Your task to perform on an android device: Open Yahoo.com Image 0: 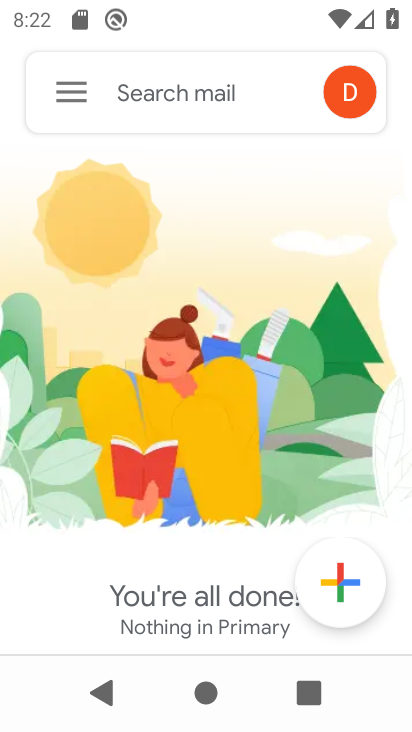
Step 0: press home button
Your task to perform on an android device: Open Yahoo.com Image 1: 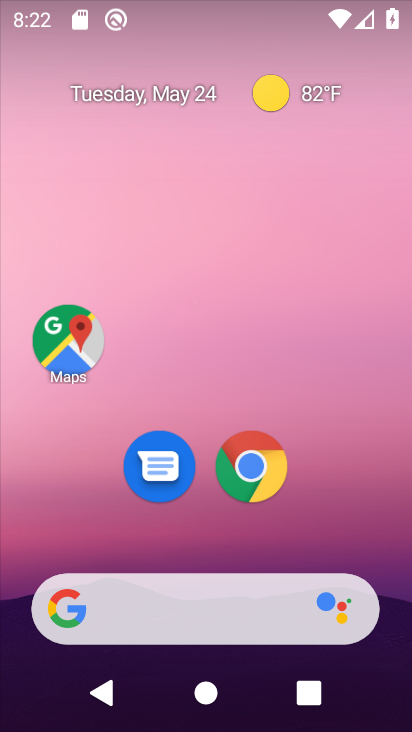
Step 1: drag from (168, 544) to (217, 207)
Your task to perform on an android device: Open Yahoo.com Image 2: 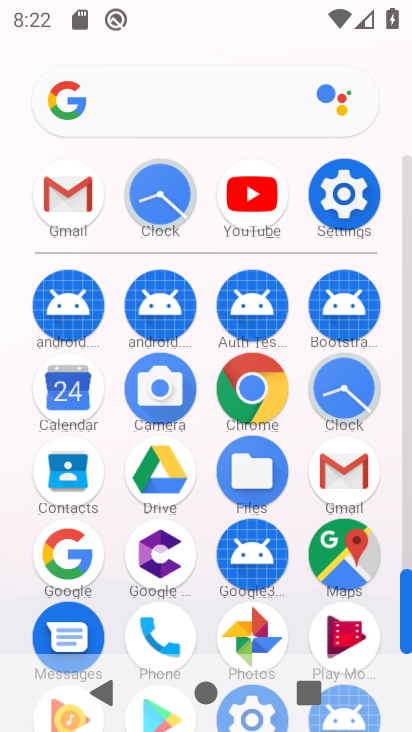
Step 2: click (265, 394)
Your task to perform on an android device: Open Yahoo.com Image 3: 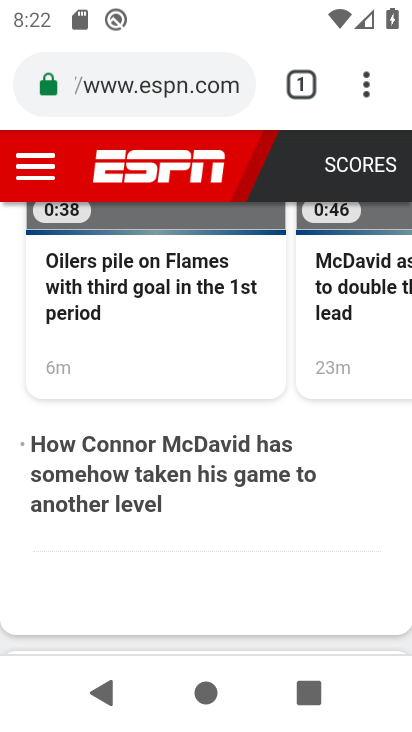
Step 3: drag from (244, 593) to (244, 230)
Your task to perform on an android device: Open Yahoo.com Image 4: 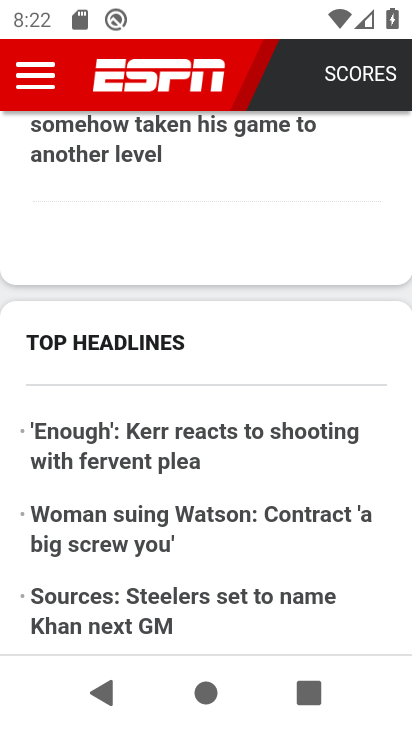
Step 4: drag from (301, 165) to (252, 552)
Your task to perform on an android device: Open Yahoo.com Image 5: 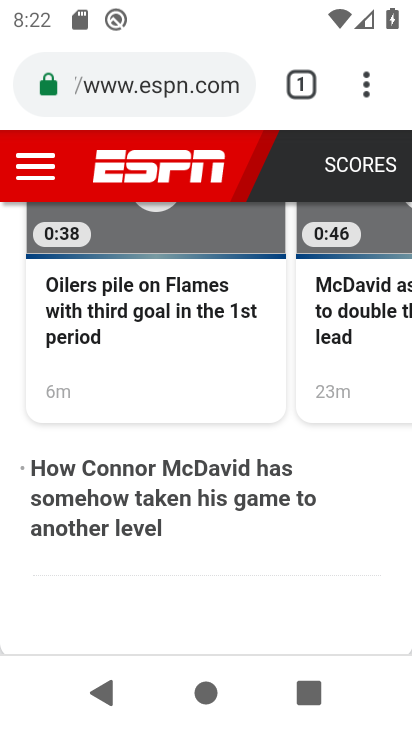
Step 5: click (298, 77)
Your task to perform on an android device: Open Yahoo.com Image 6: 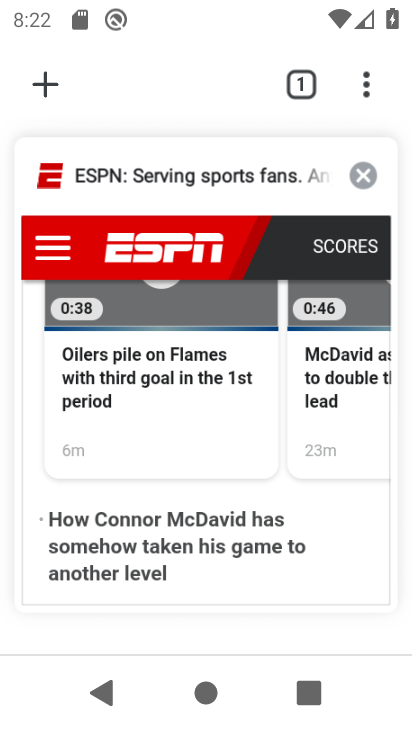
Step 6: click (365, 179)
Your task to perform on an android device: Open Yahoo.com Image 7: 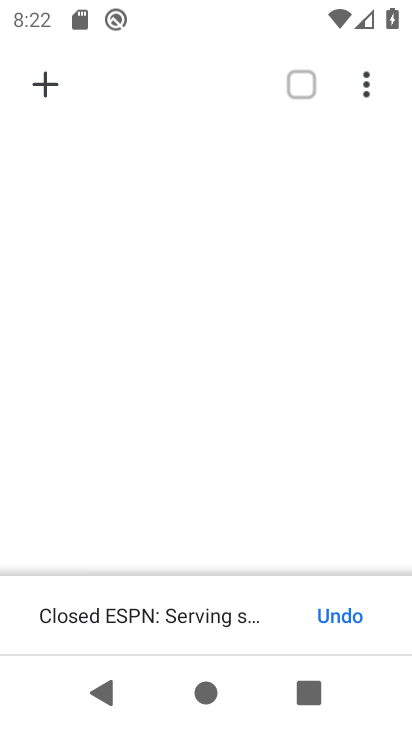
Step 7: click (44, 89)
Your task to perform on an android device: Open Yahoo.com Image 8: 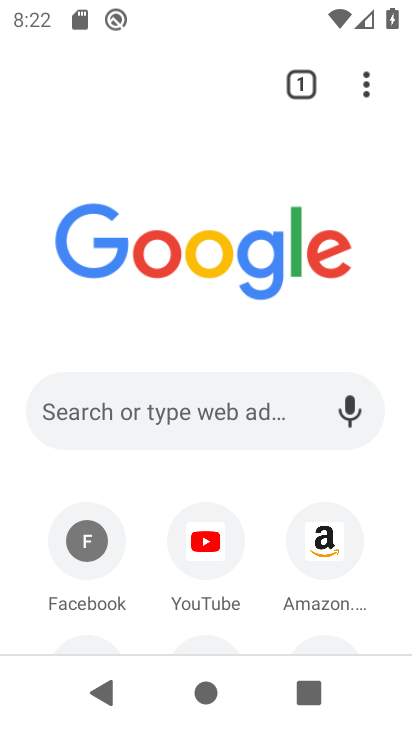
Step 8: drag from (148, 624) to (171, 316)
Your task to perform on an android device: Open Yahoo.com Image 9: 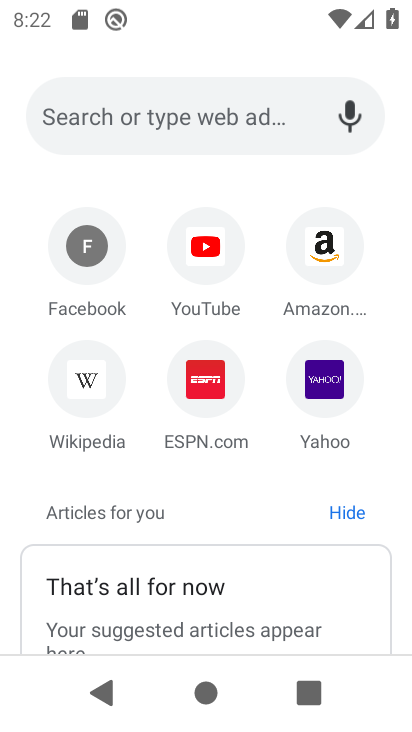
Step 9: click (331, 378)
Your task to perform on an android device: Open Yahoo.com Image 10: 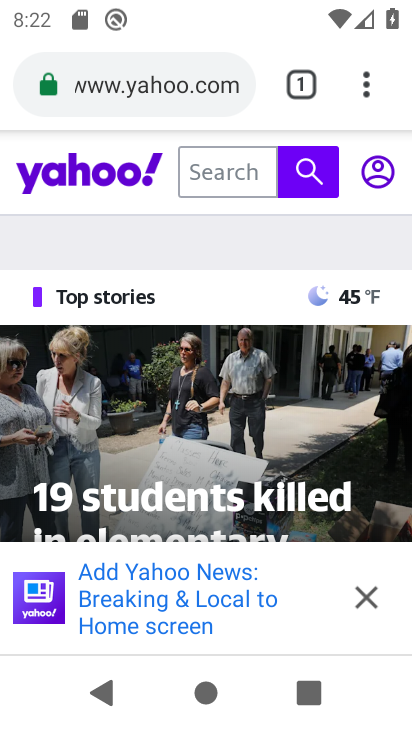
Step 10: task complete